Your task to perform on an android device: Empty the shopping cart on ebay. Image 0: 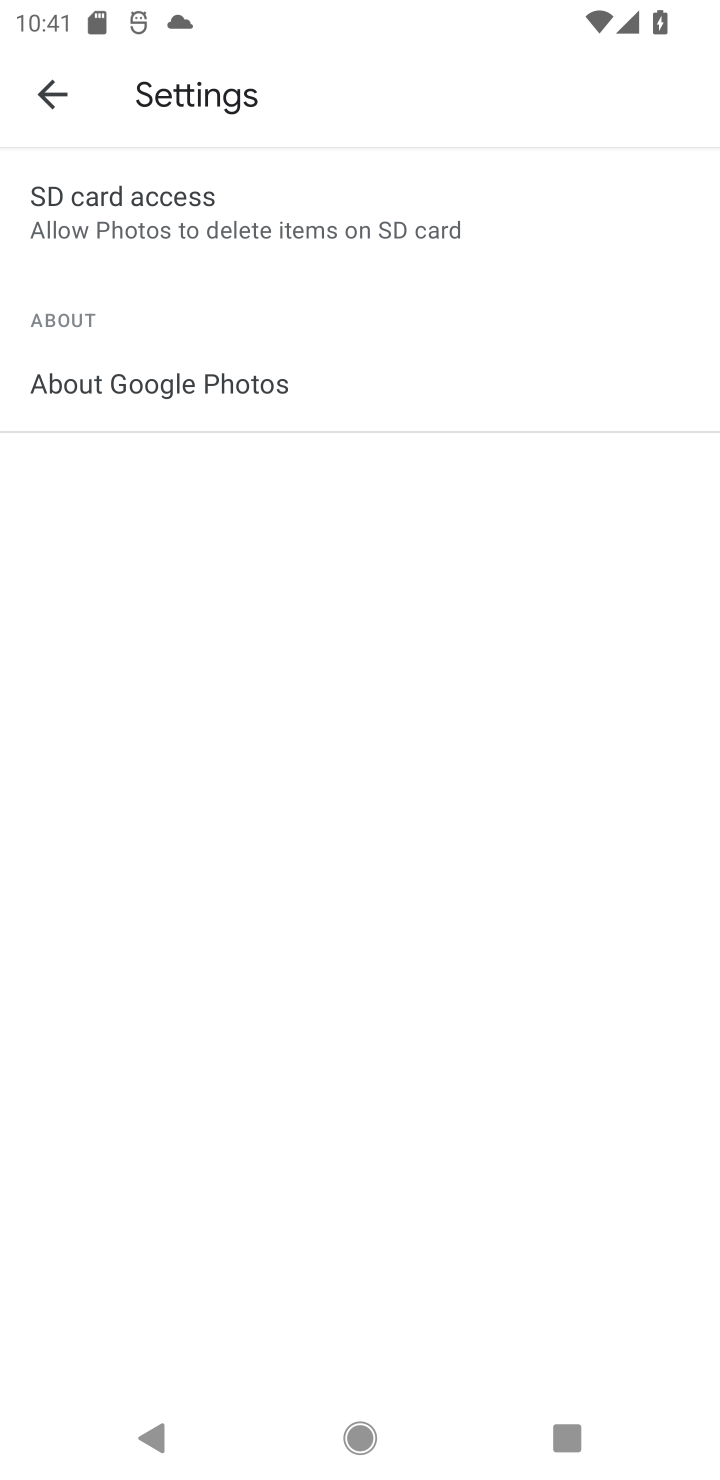
Step 0: press home button
Your task to perform on an android device: Empty the shopping cart on ebay. Image 1: 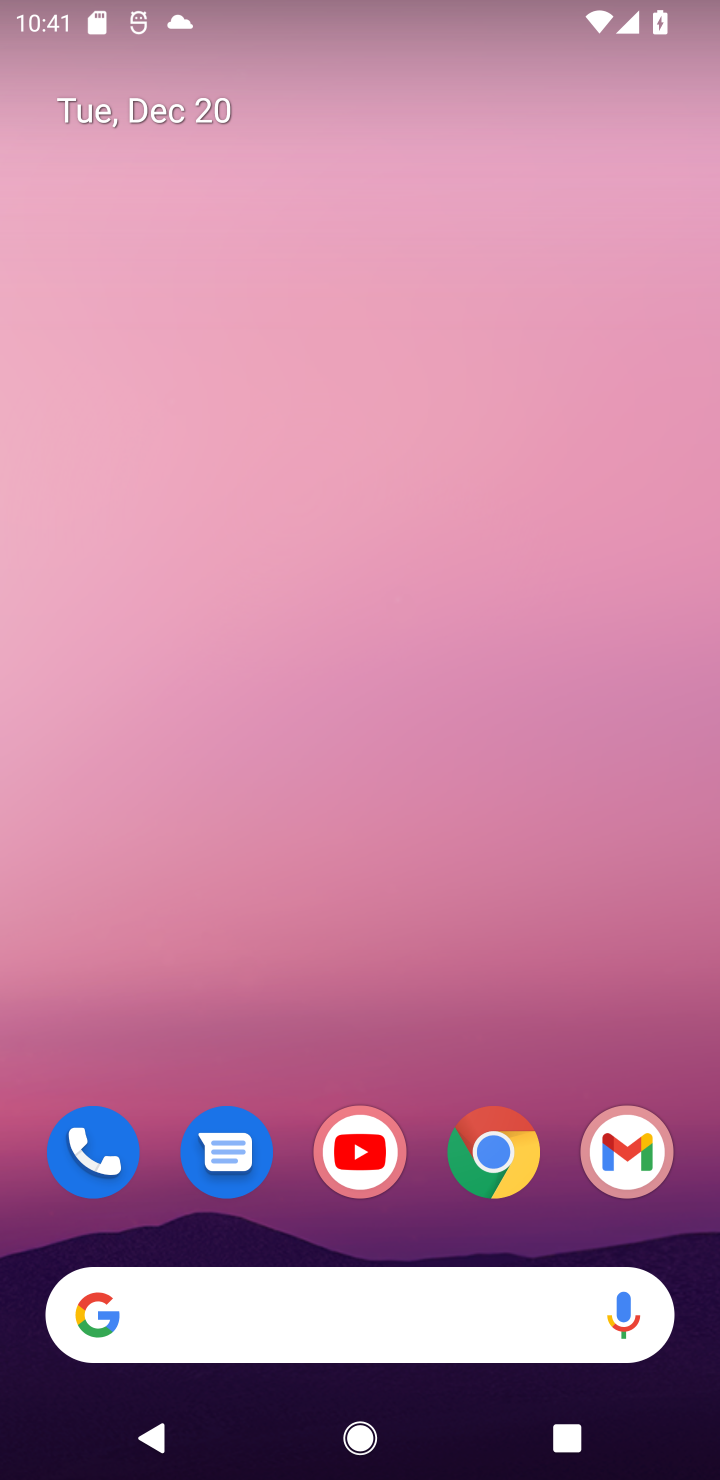
Step 1: click (493, 1156)
Your task to perform on an android device: Empty the shopping cart on ebay. Image 2: 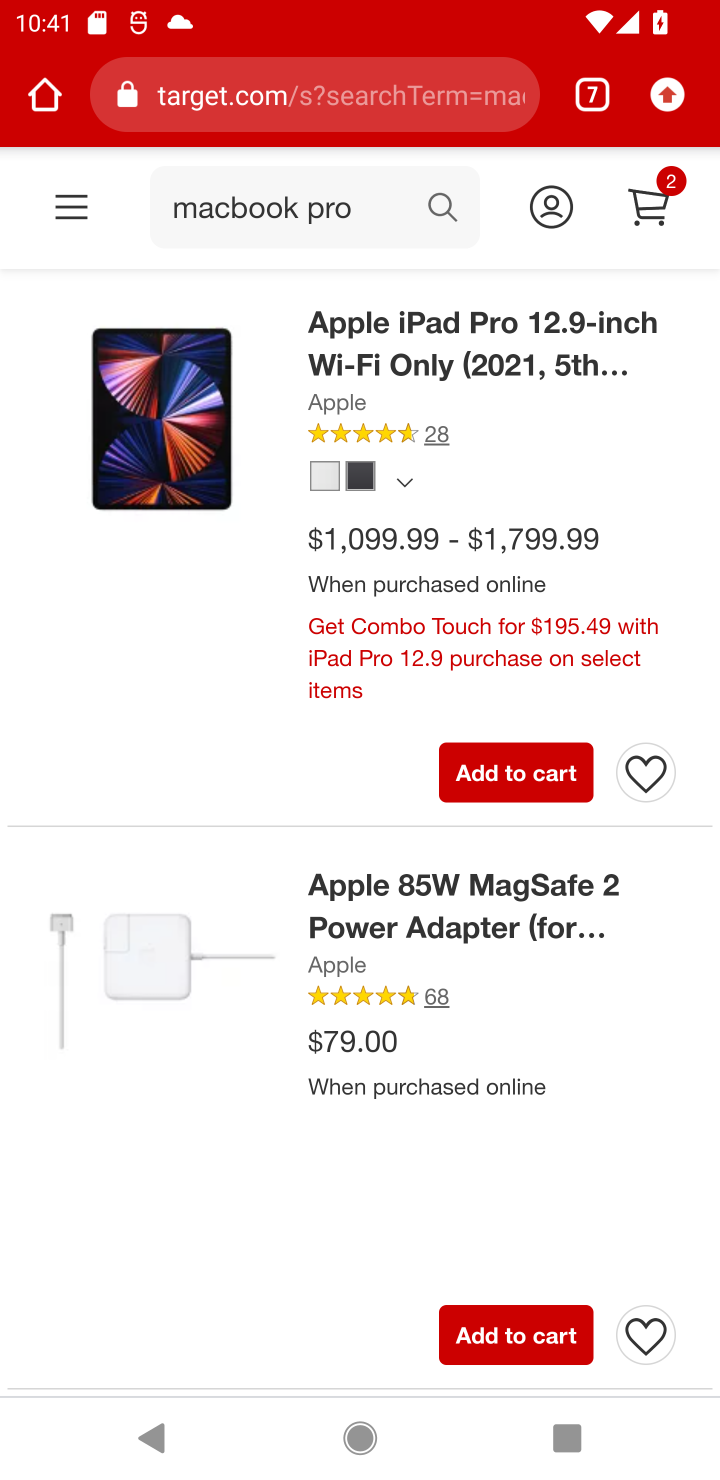
Step 2: click (592, 98)
Your task to perform on an android device: Empty the shopping cart on ebay. Image 3: 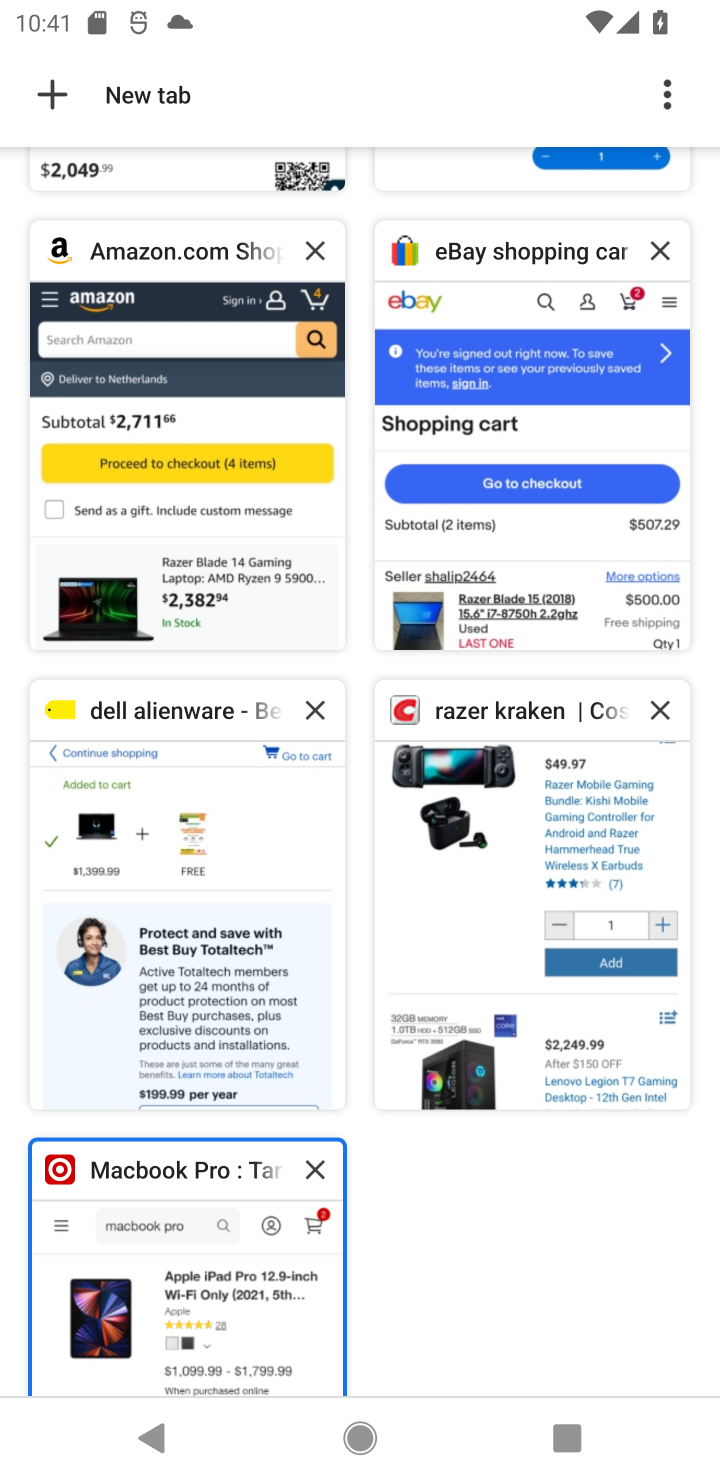
Step 3: click (491, 396)
Your task to perform on an android device: Empty the shopping cart on ebay. Image 4: 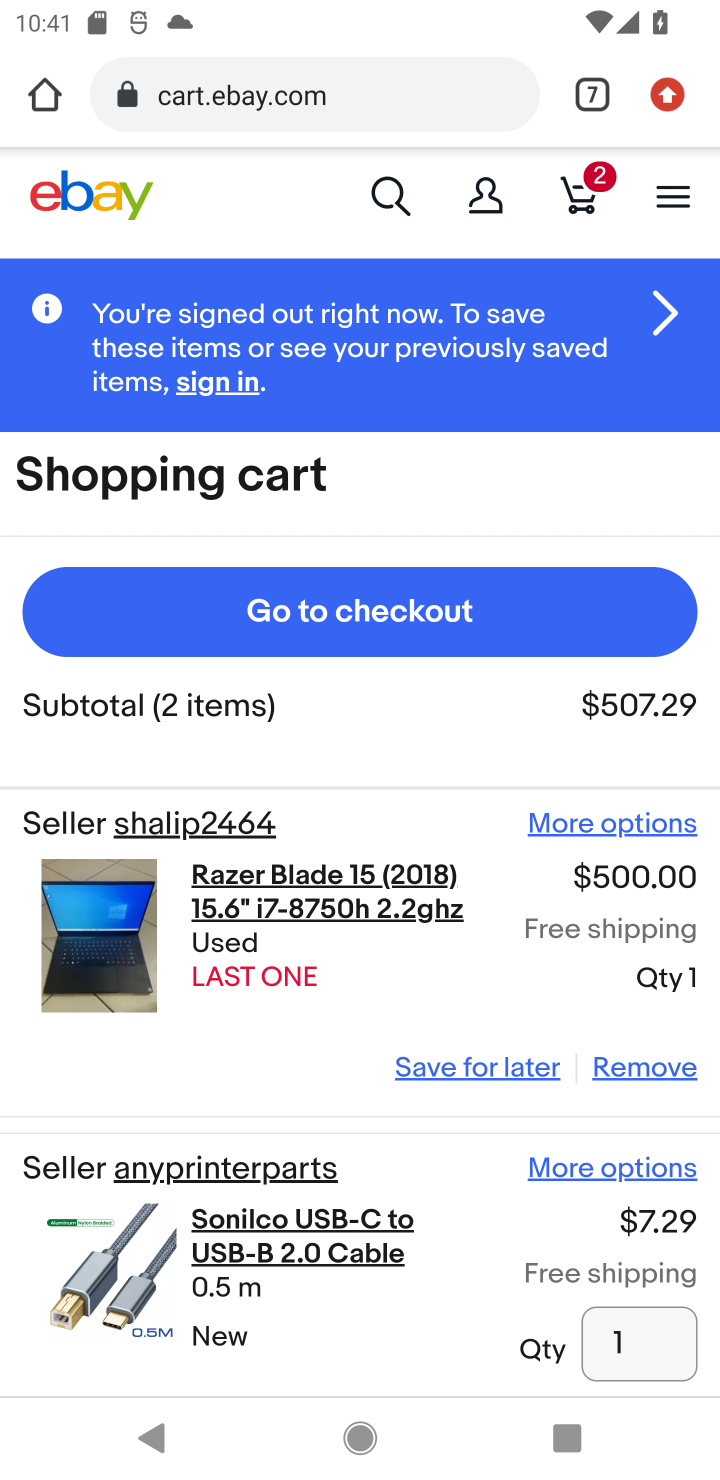
Step 4: click (601, 1068)
Your task to perform on an android device: Empty the shopping cart on ebay. Image 5: 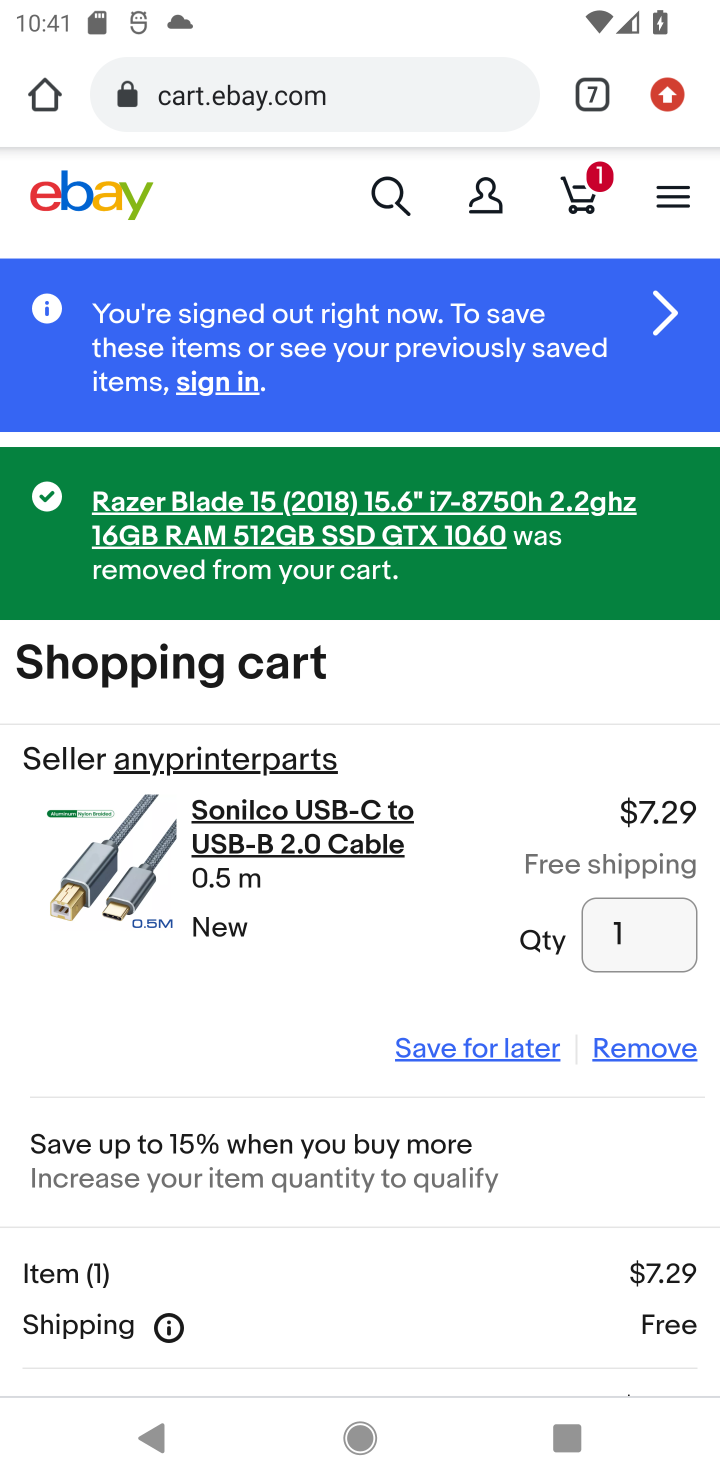
Step 5: click (645, 1061)
Your task to perform on an android device: Empty the shopping cart on ebay. Image 6: 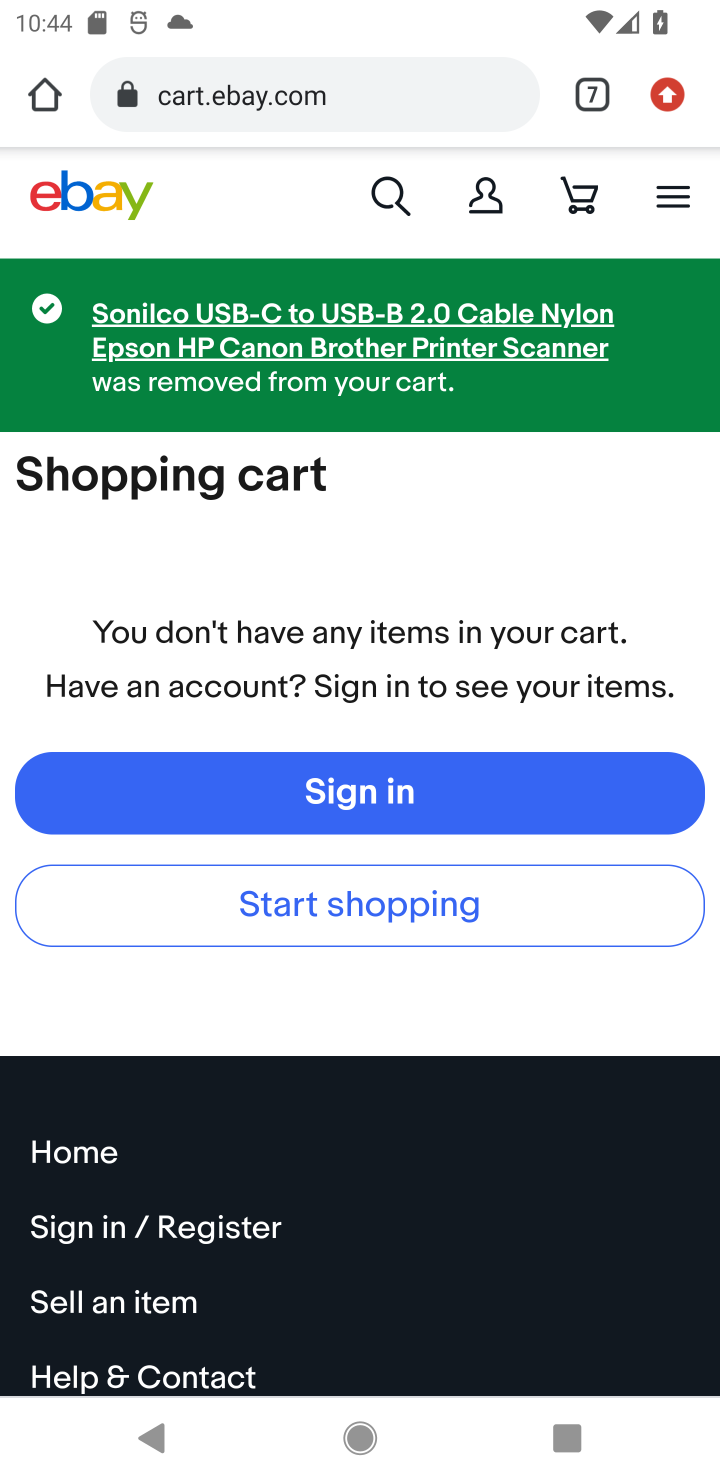
Step 6: task complete